Your task to perform on an android device: Go to notification settings Image 0: 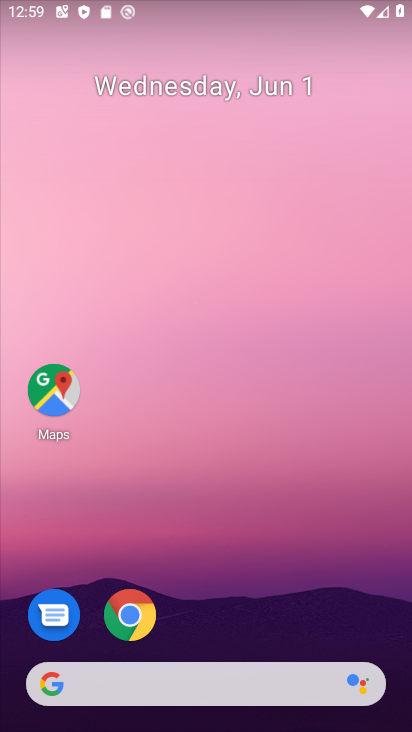
Step 0: task complete